Your task to perform on an android device: turn smart compose on in the gmail app Image 0: 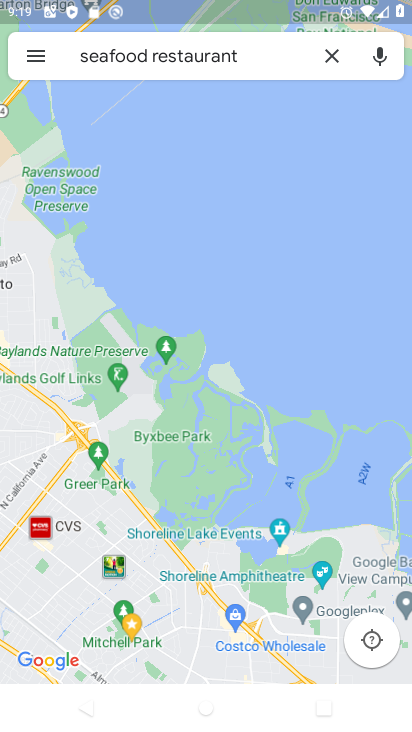
Step 0: press home button
Your task to perform on an android device: turn smart compose on in the gmail app Image 1: 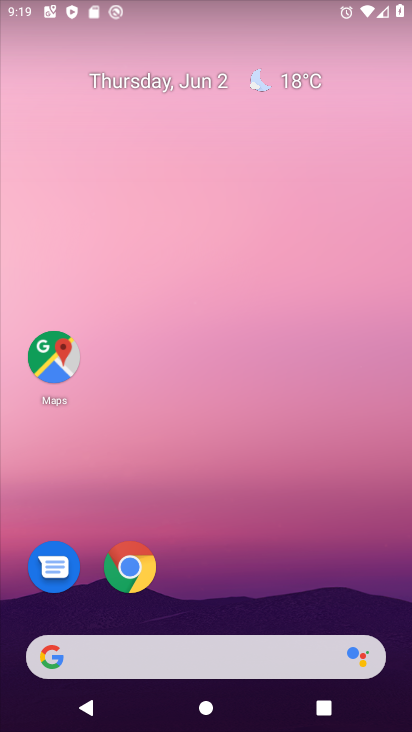
Step 1: drag from (217, 591) to (237, 43)
Your task to perform on an android device: turn smart compose on in the gmail app Image 2: 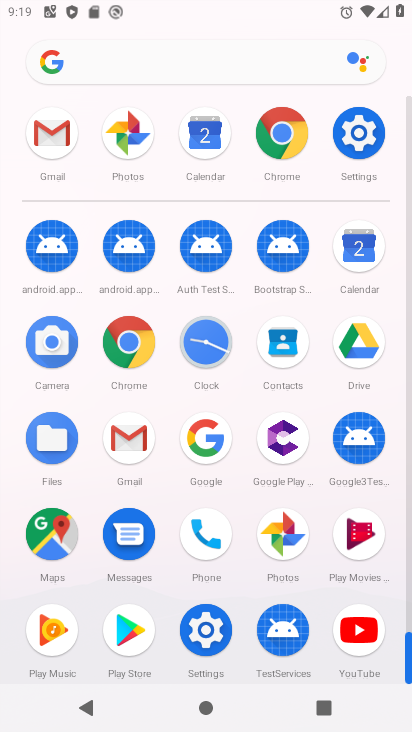
Step 2: click (113, 442)
Your task to perform on an android device: turn smart compose on in the gmail app Image 3: 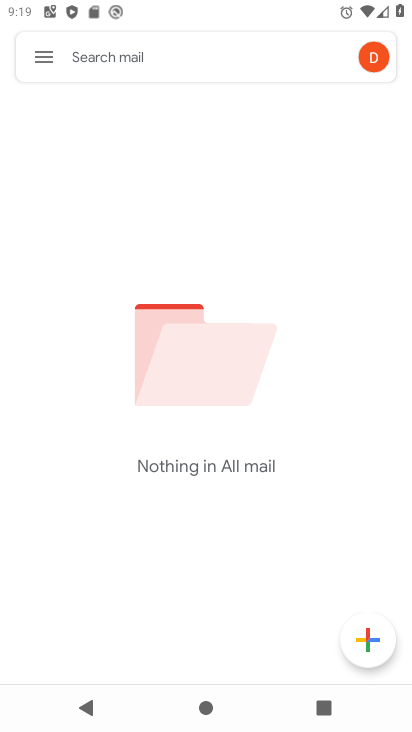
Step 3: click (44, 53)
Your task to perform on an android device: turn smart compose on in the gmail app Image 4: 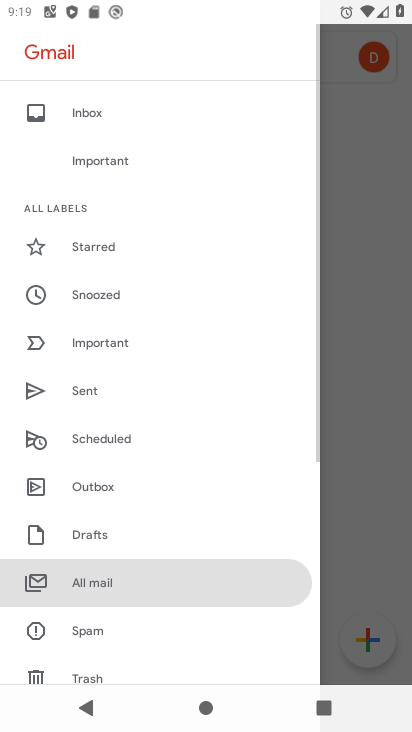
Step 4: drag from (115, 559) to (161, 181)
Your task to perform on an android device: turn smart compose on in the gmail app Image 5: 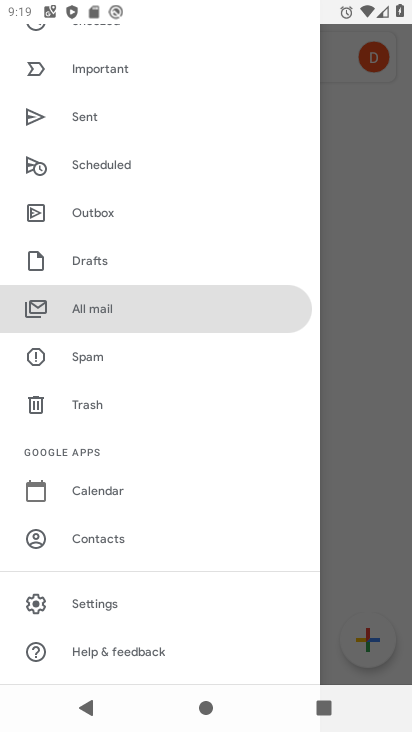
Step 5: click (104, 608)
Your task to perform on an android device: turn smart compose on in the gmail app Image 6: 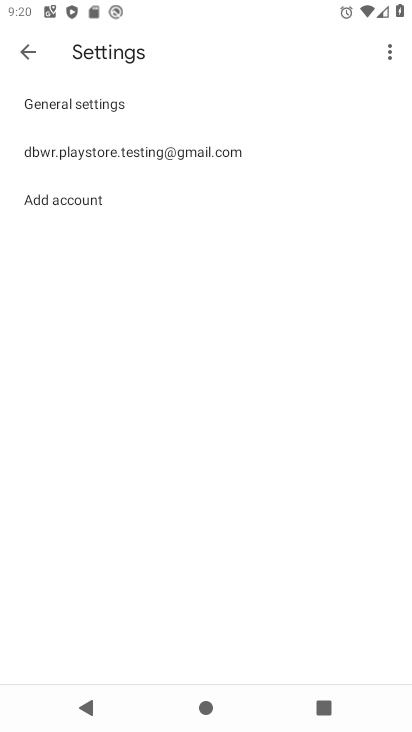
Step 6: click (149, 153)
Your task to perform on an android device: turn smart compose on in the gmail app Image 7: 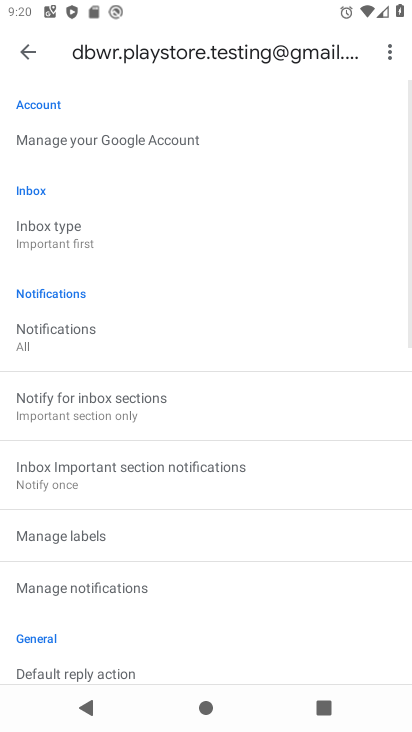
Step 7: task complete